Your task to perform on an android device: Is it going to rain tomorrow? Image 0: 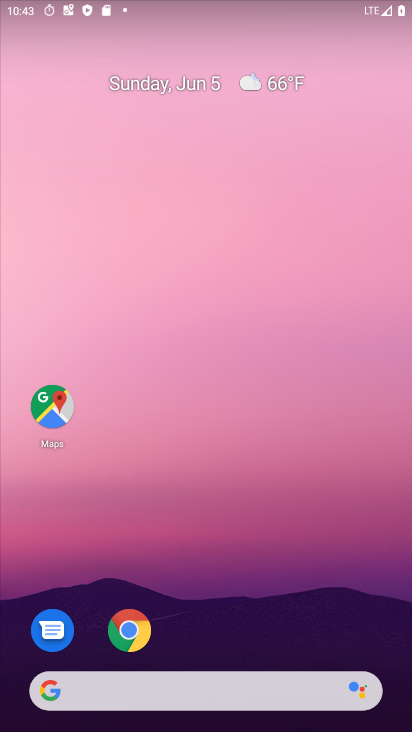
Step 0: drag from (232, 649) to (236, 84)
Your task to perform on an android device: Is it going to rain tomorrow? Image 1: 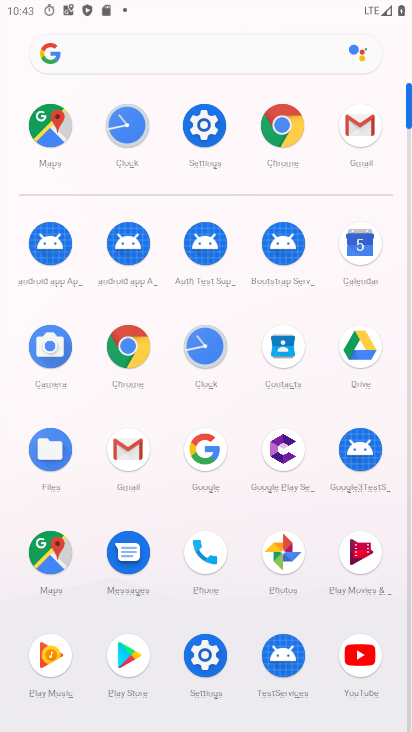
Step 1: click (207, 447)
Your task to perform on an android device: Is it going to rain tomorrow? Image 2: 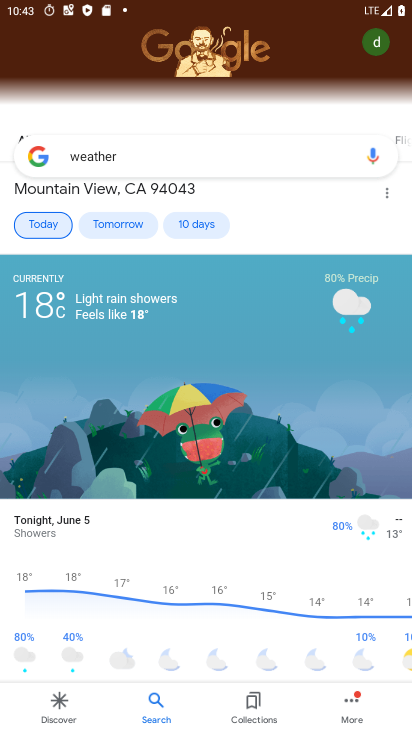
Step 2: click (107, 219)
Your task to perform on an android device: Is it going to rain tomorrow? Image 3: 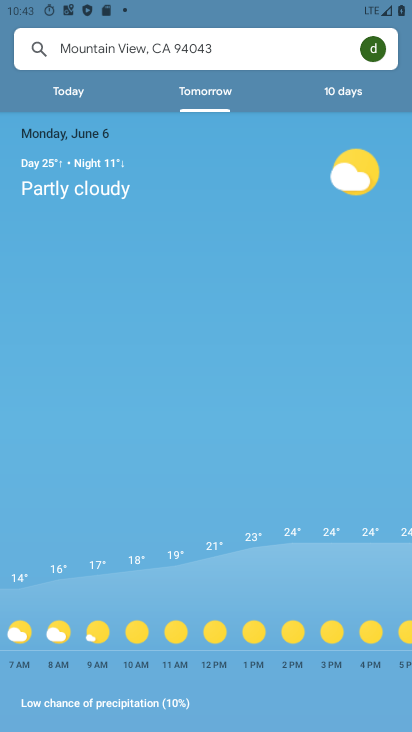
Step 3: task complete